Your task to perform on an android device: Open the web browser Image 0: 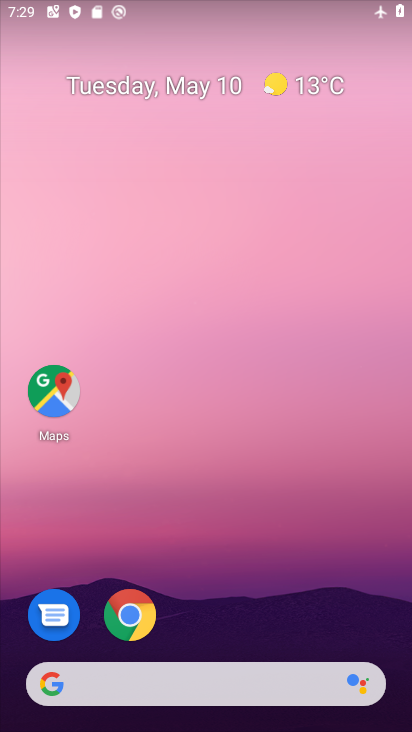
Step 0: click (140, 618)
Your task to perform on an android device: Open the web browser Image 1: 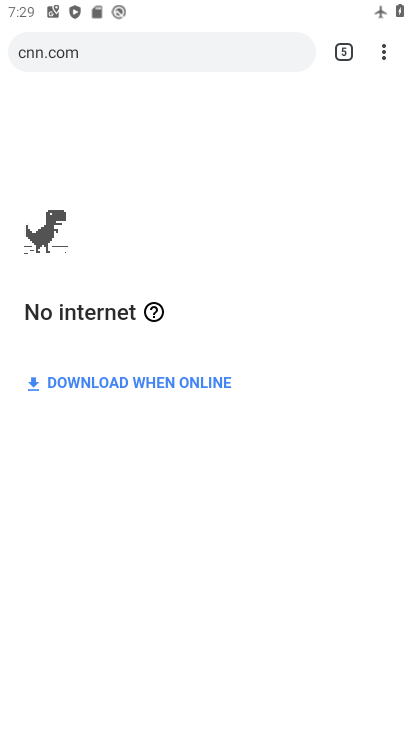
Step 1: task complete